Your task to perform on an android device: see creations saved in the google photos Image 0: 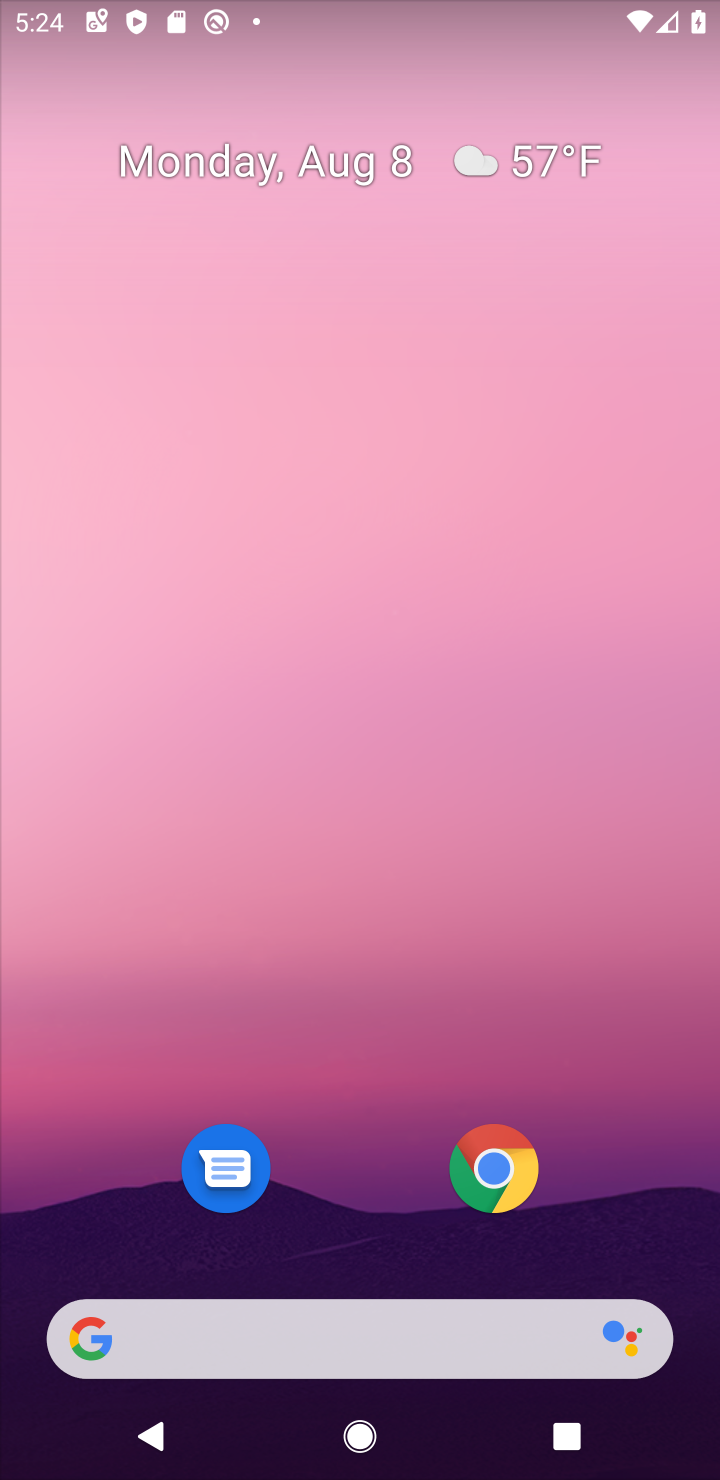
Step 0: drag from (395, 1214) to (405, 365)
Your task to perform on an android device: see creations saved in the google photos Image 1: 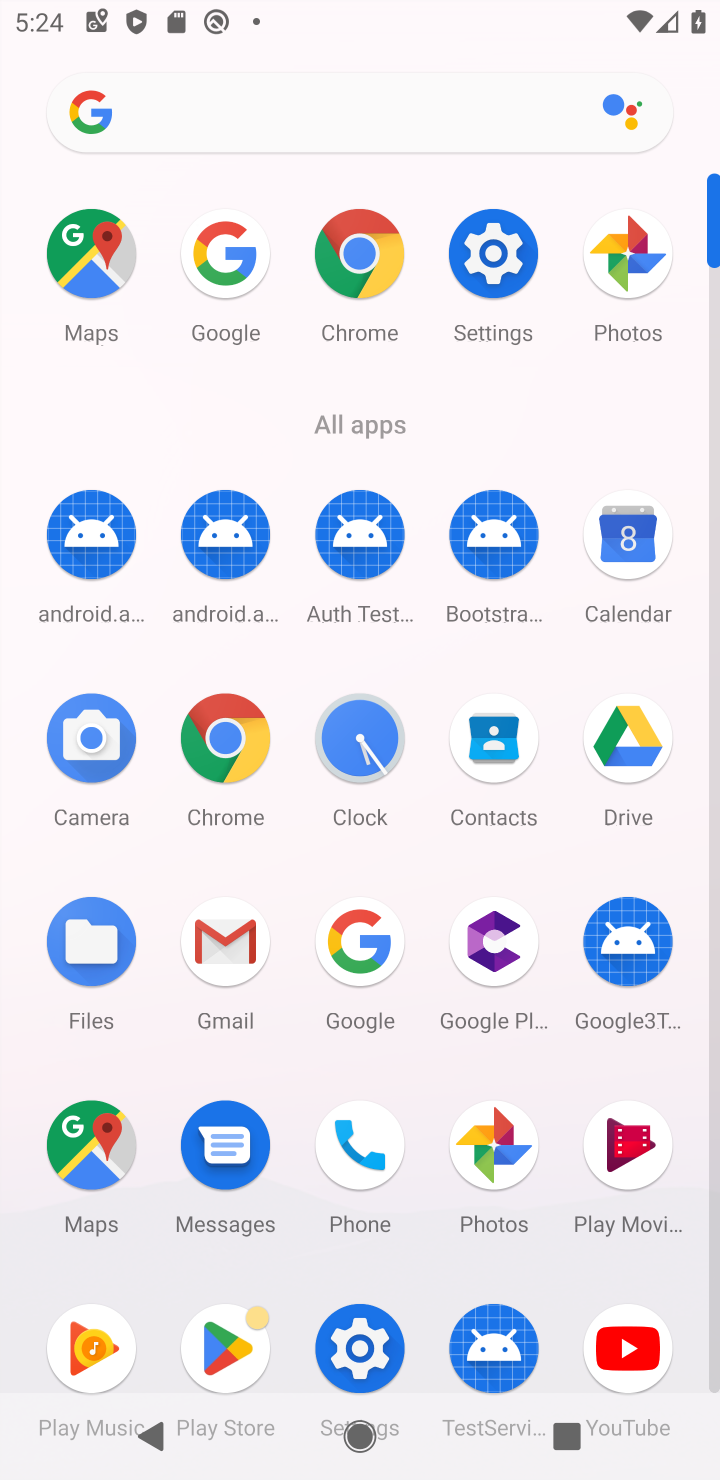
Step 1: click (505, 1173)
Your task to perform on an android device: see creations saved in the google photos Image 2: 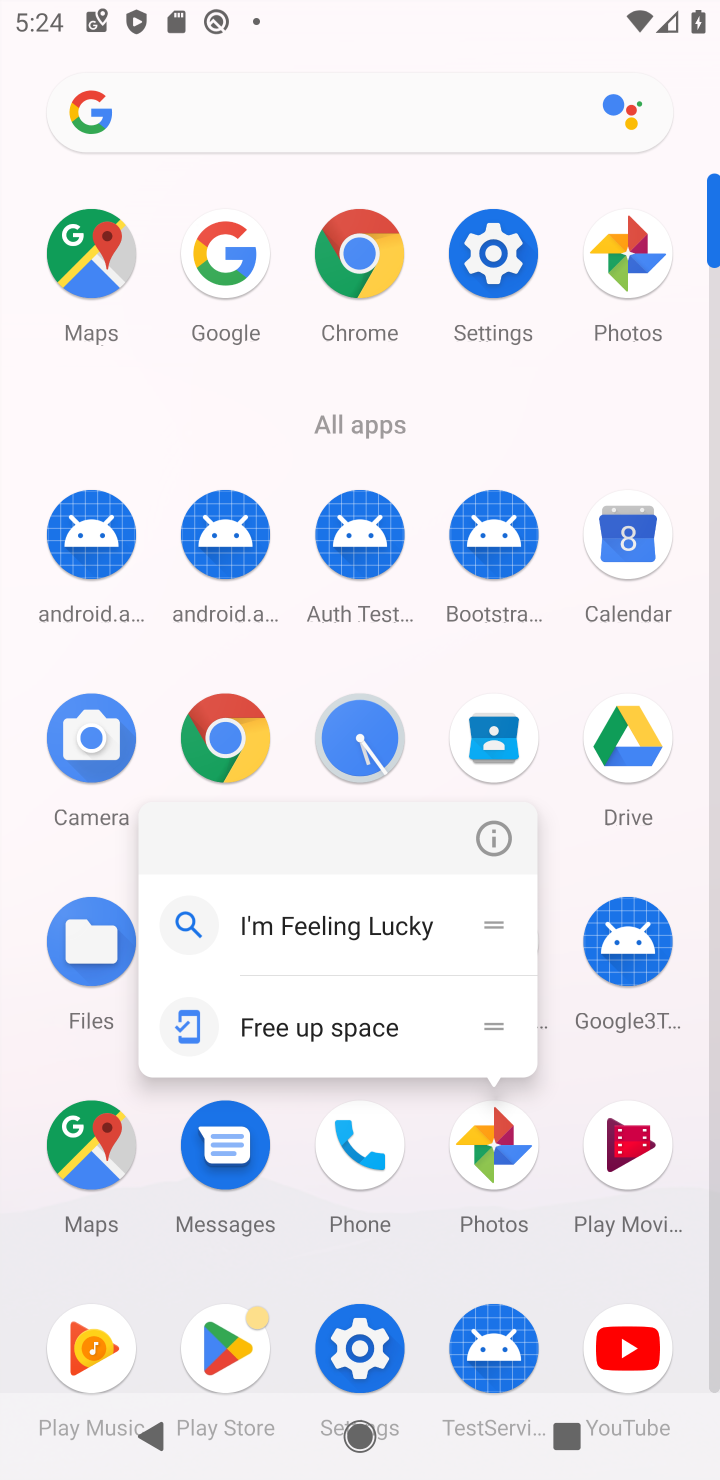
Step 2: click (465, 1156)
Your task to perform on an android device: see creations saved in the google photos Image 3: 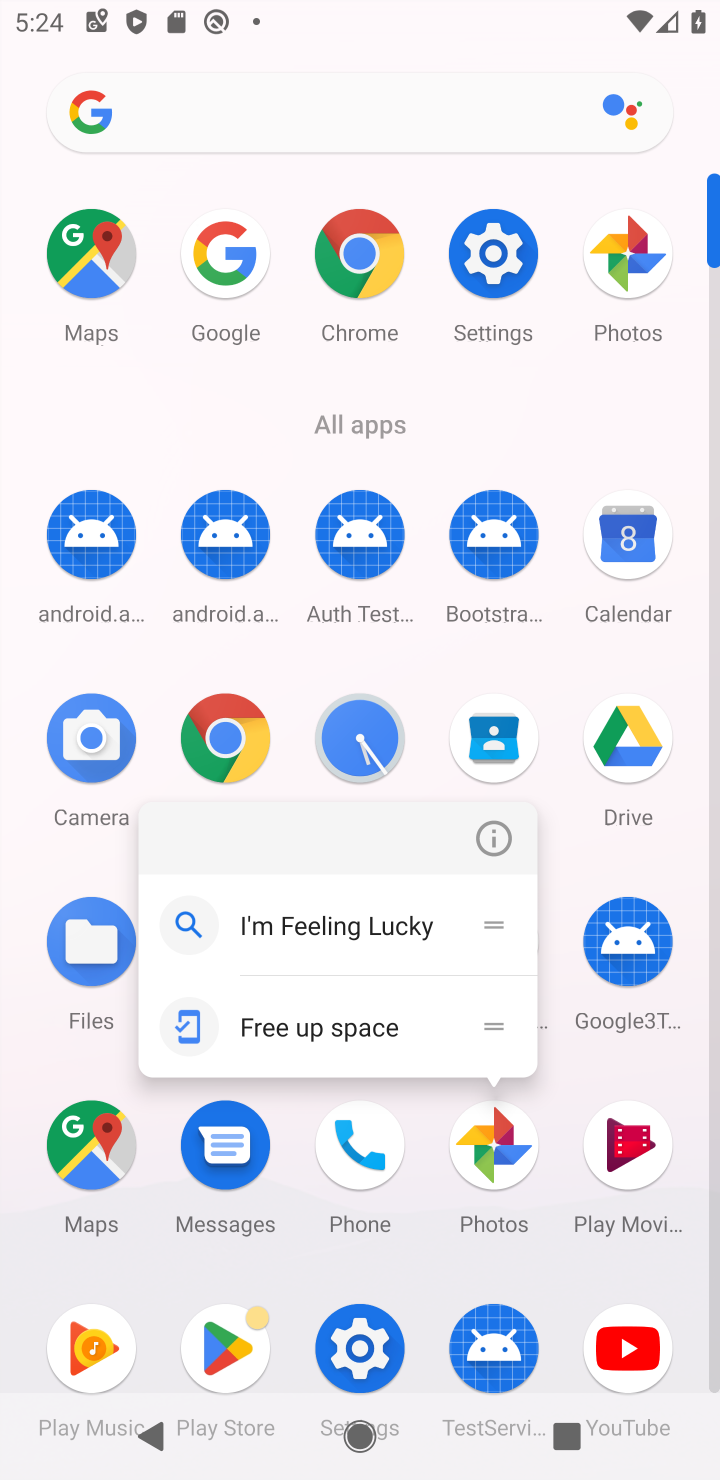
Step 3: click (465, 1156)
Your task to perform on an android device: see creations saved in the google photos Image 4: 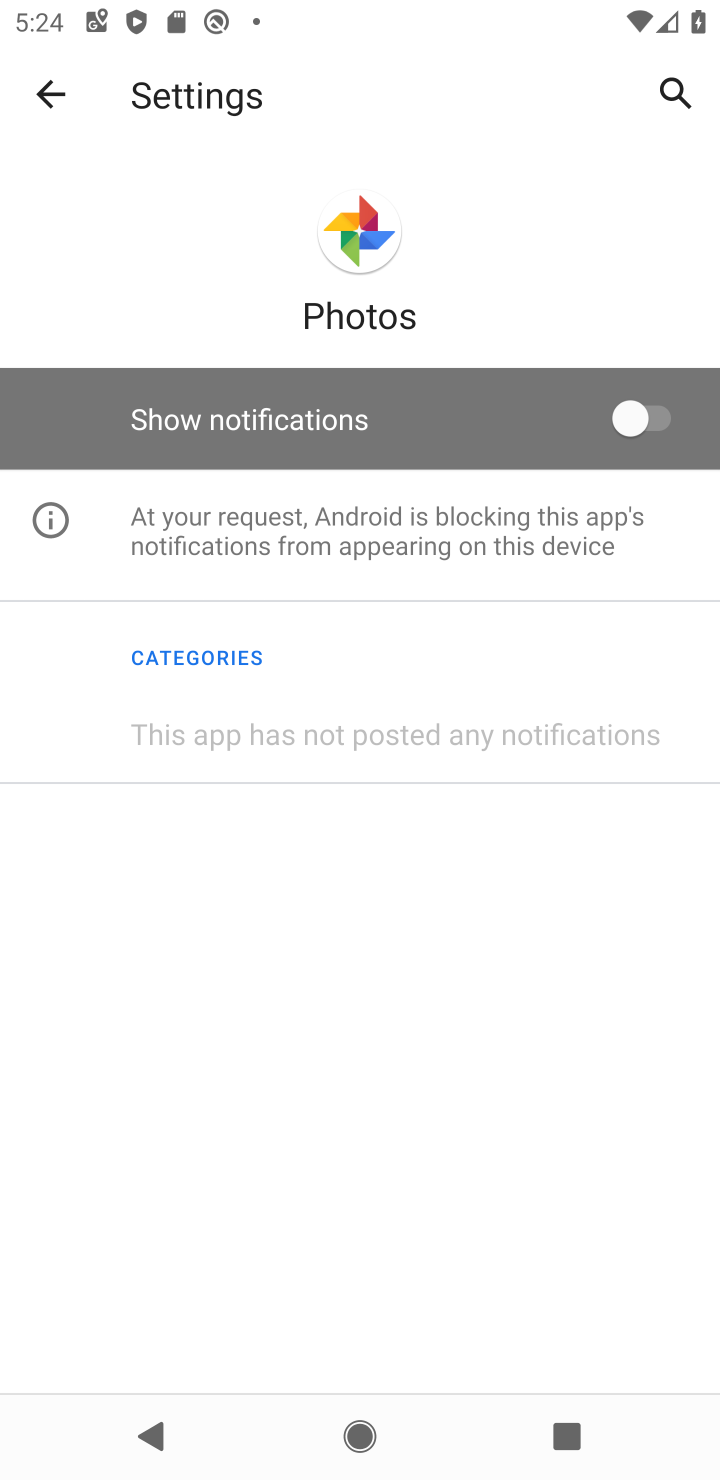
Step 4: click (26, 82)
Your task to perform on an android device: see creations saved in the google photos Image 5: 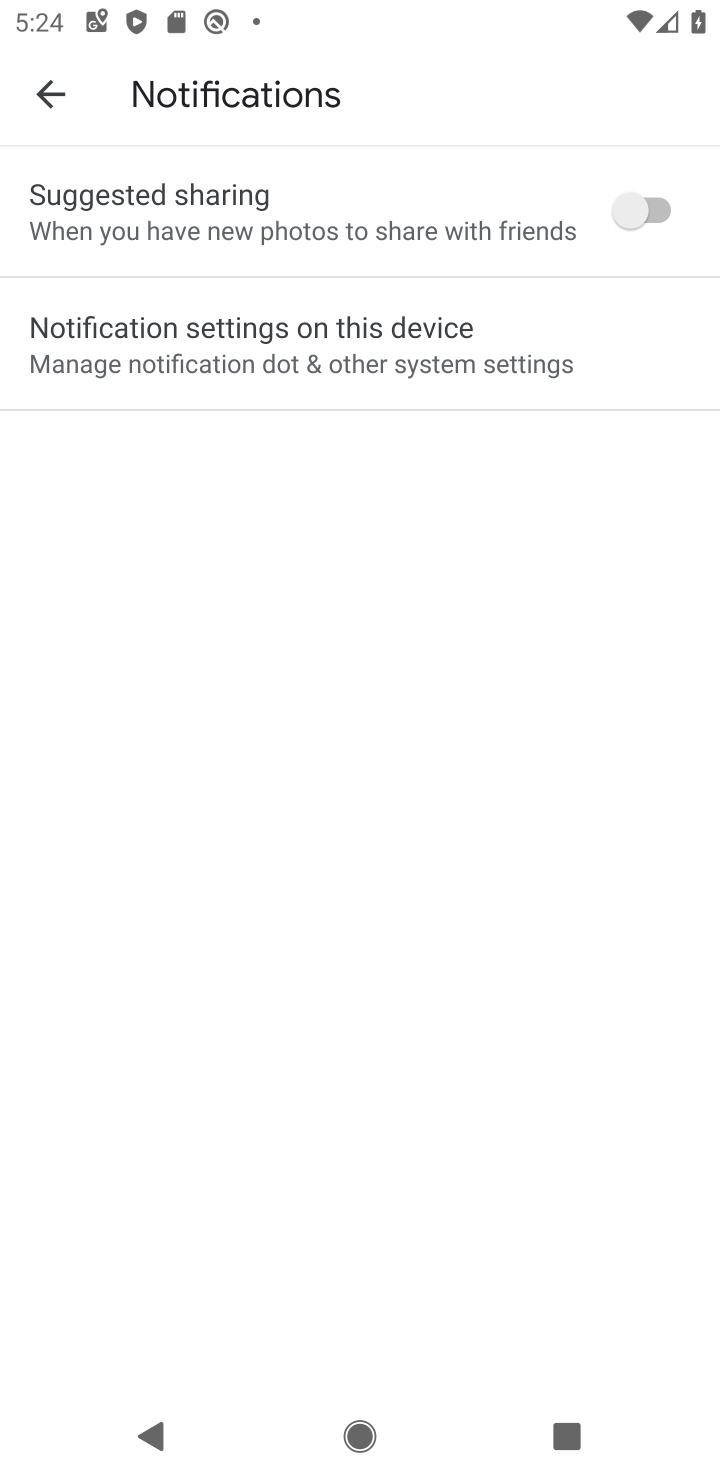
Step 5: click (55, 82)
Your task to perform on an android device: see creations saved in the google photos Image 6: 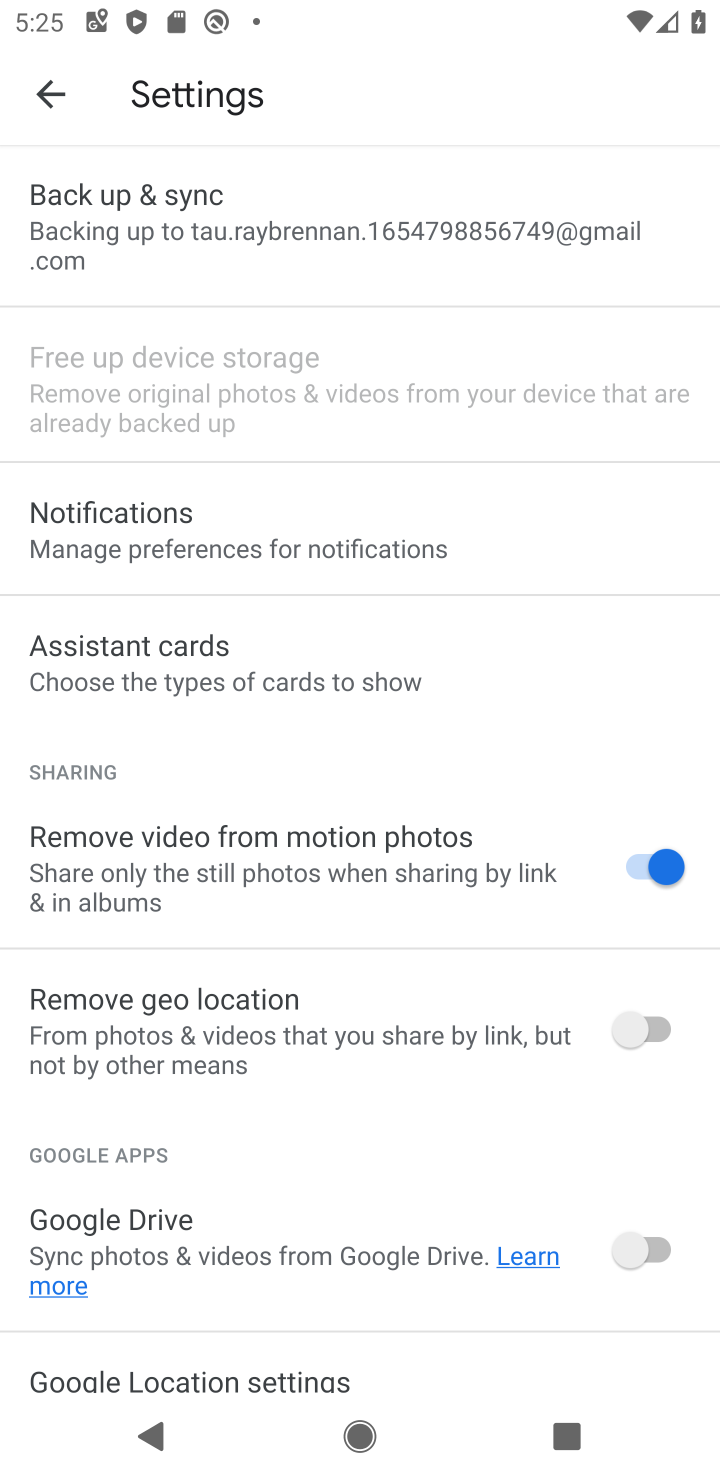
Step 6: click (57, 92)
Your task to perform on an android device: see creations saved in the google photos Image 7: 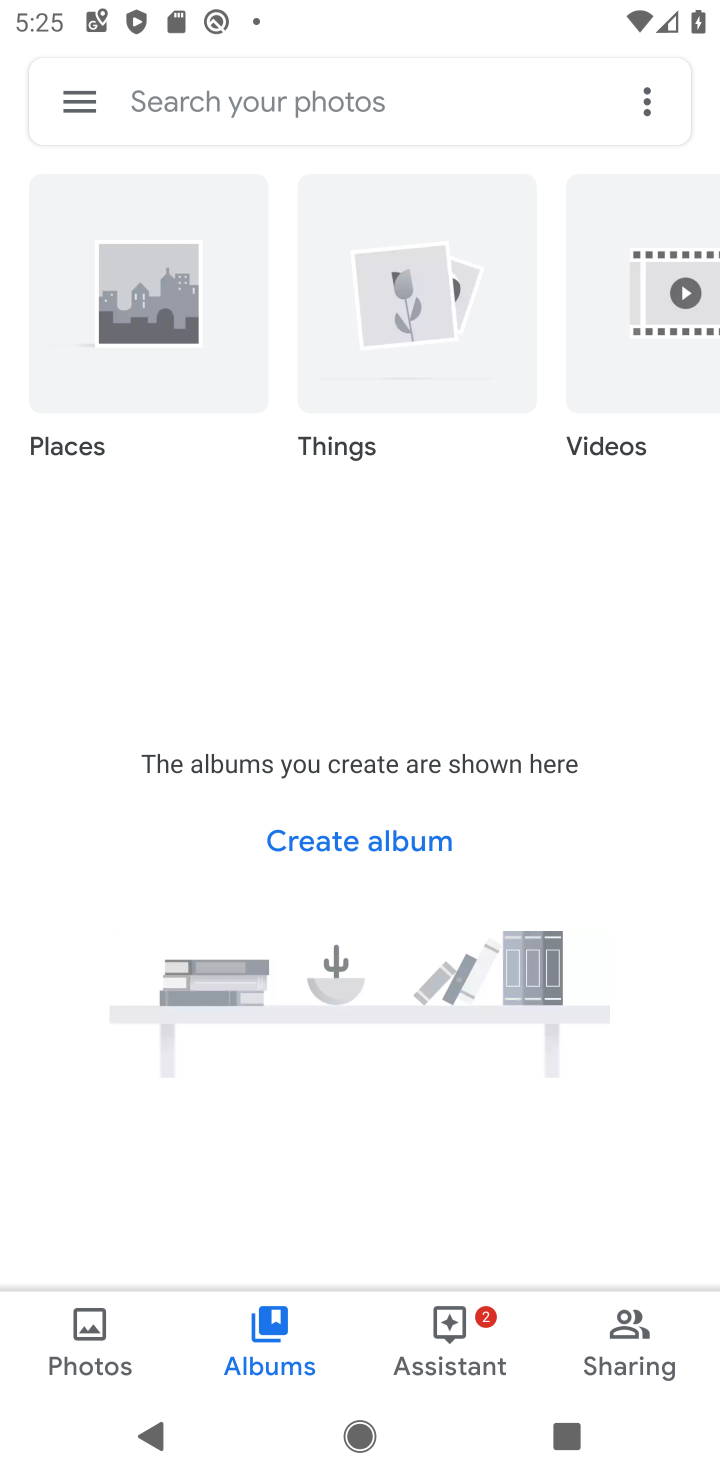
Step 7: click (435, 1337)
Your task to perform on an android device: see creations saved in the google photos Image 8: 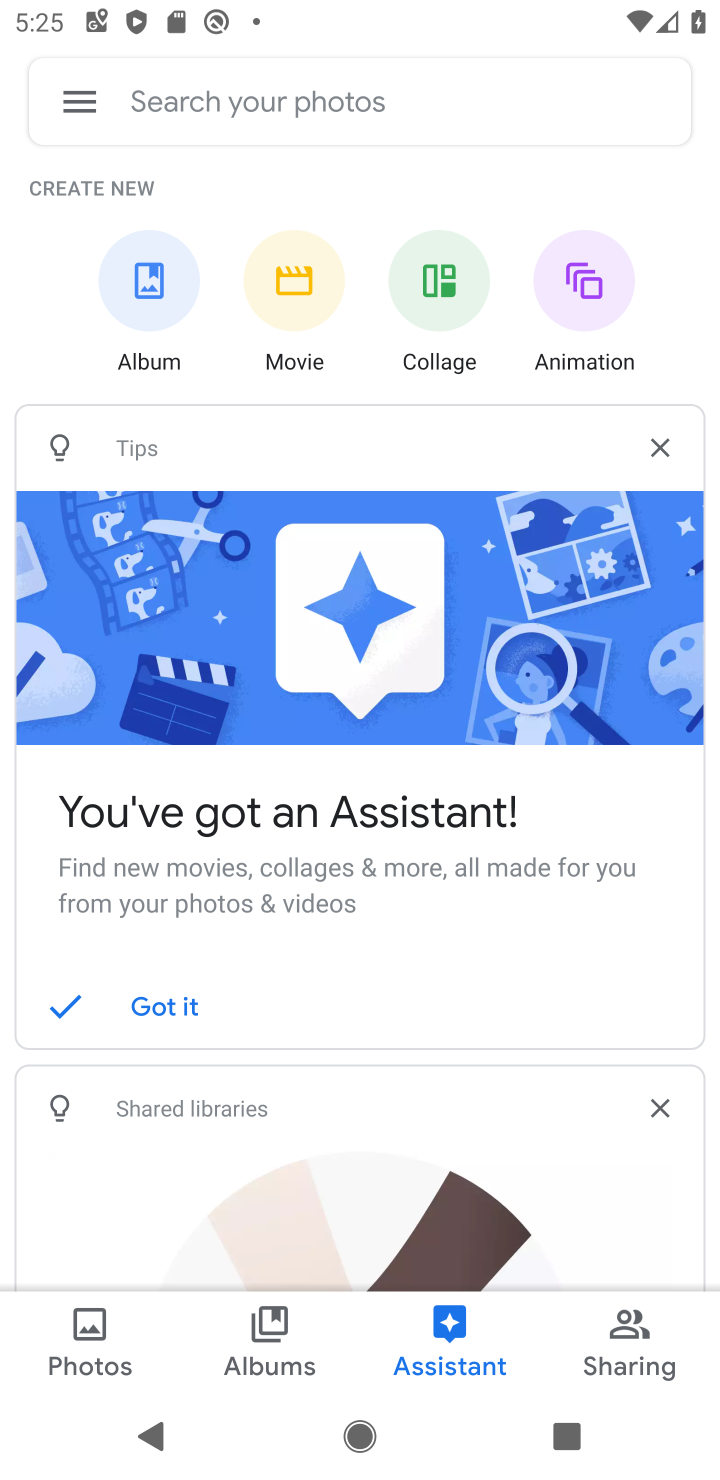
Step 8: task complete